Your task to perform on an android device: turn on improve location accuracy Image 0: 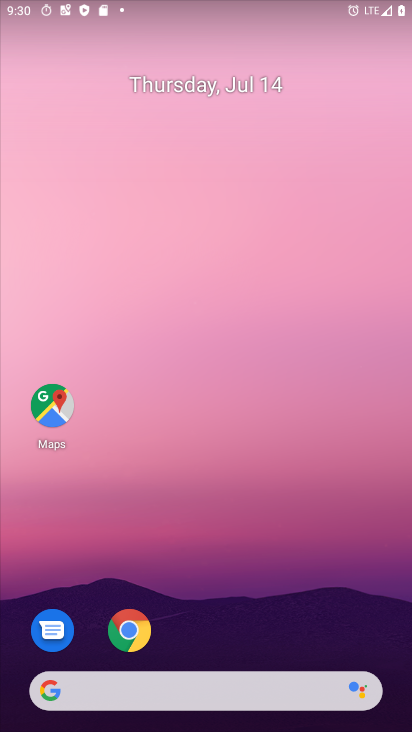
Step 0: drag from (205, 720) to (208, 89)
Your task to perform on an android device: turn on improve location accuracy Image 1: 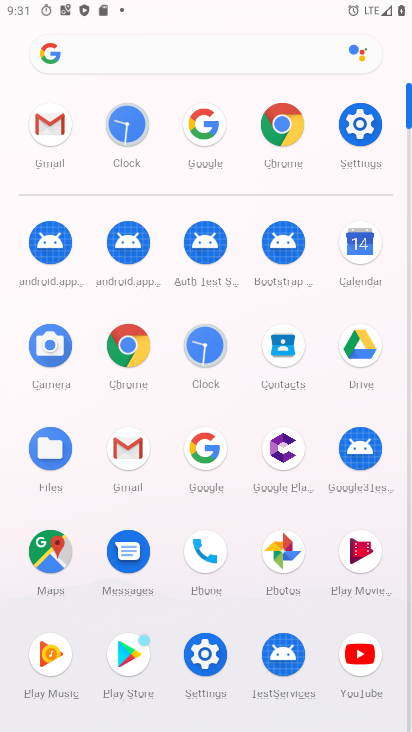
Step 1: click (353, 128)
Your task to perform on an android device: turn on improve location accuracy Image 2: 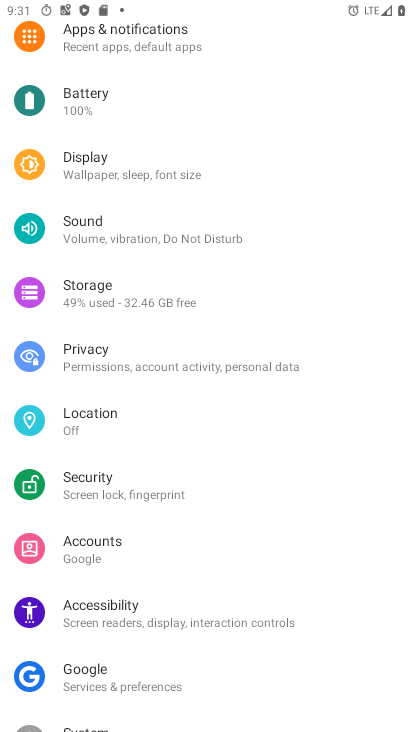
Step 2: click (82, 422)
Your task to perform on an android device: turn on improve location accuracy Image 3: 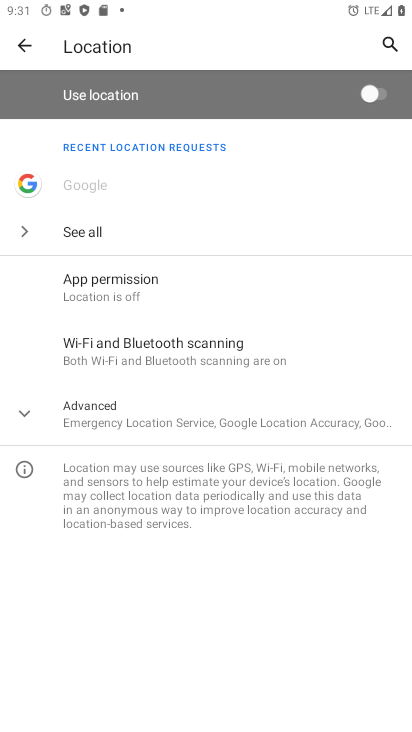
Step 3: click (105, 422)
Your task to perform on an android device: turn on improve location accuracy Image 4: 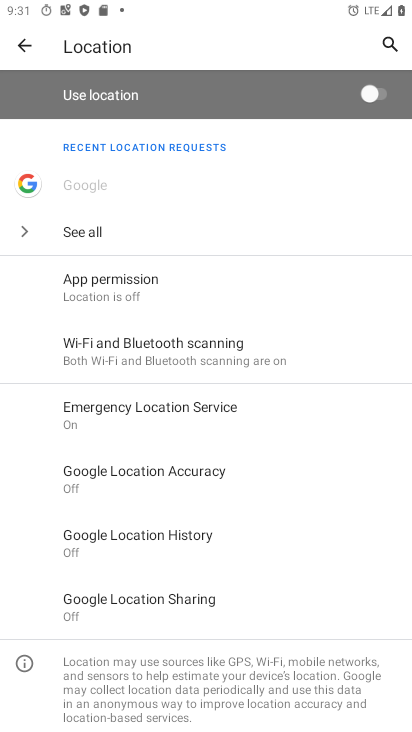
Step 4: click (121, 473)
Your task to perform on an android device: turn on improve location accuracy Image 5: 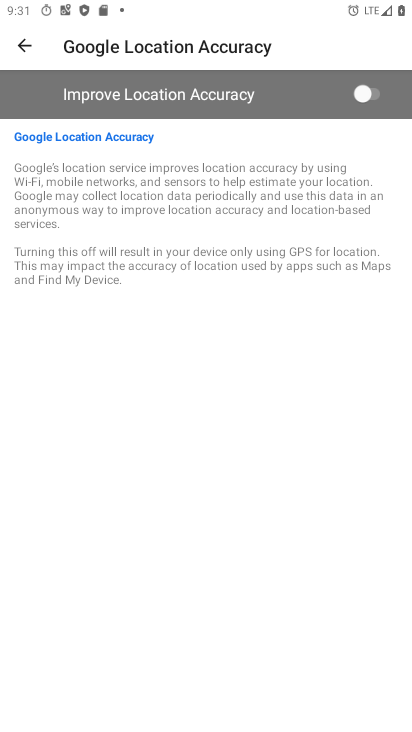
Step 5: click (371, 91)
Your task to perform on an android device: turn on improve location accuracy Image 6: 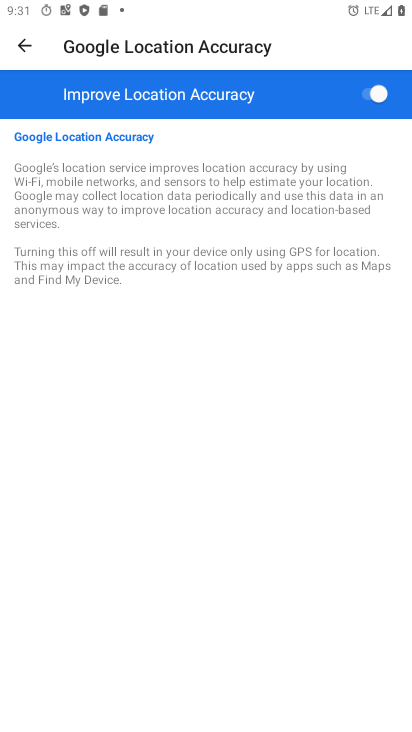
Step 6: task complete